Your task to perform on an android device: make emails show in primary in the gmail app Image 0: 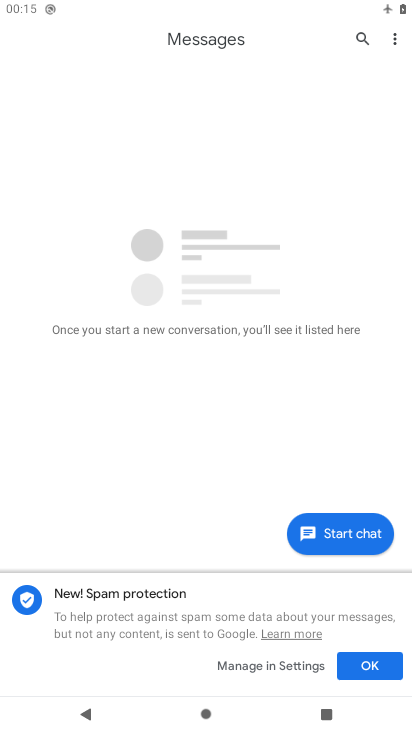
Step 0: press home button
Your task to perform on an android device: make emails show in primary in the gmail app Image 1: 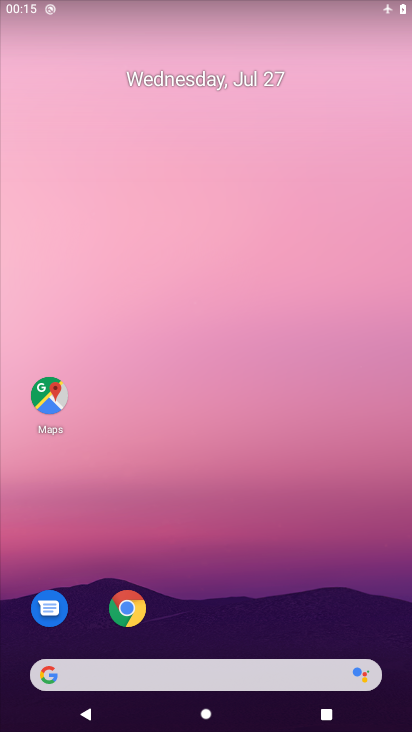
Step 1: drag from (230, 629) to (228, 59)
Your task to perform on an android device: make emails show in primary in the gmail app Image 2: 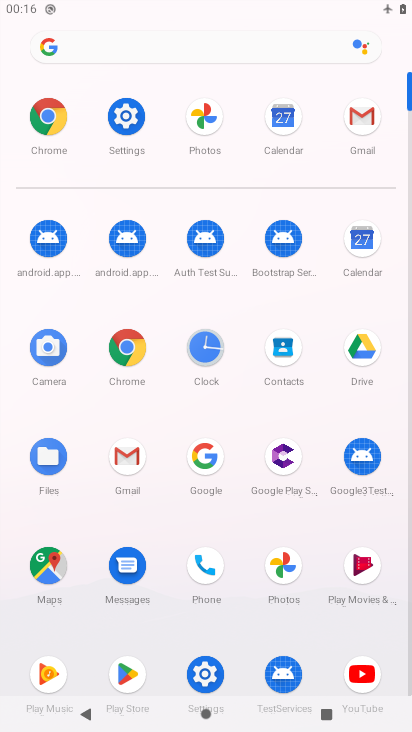
Step 2: click (369, 120)
Your task to perform on an android device: make emails show in primary in the gmail app Image 3: 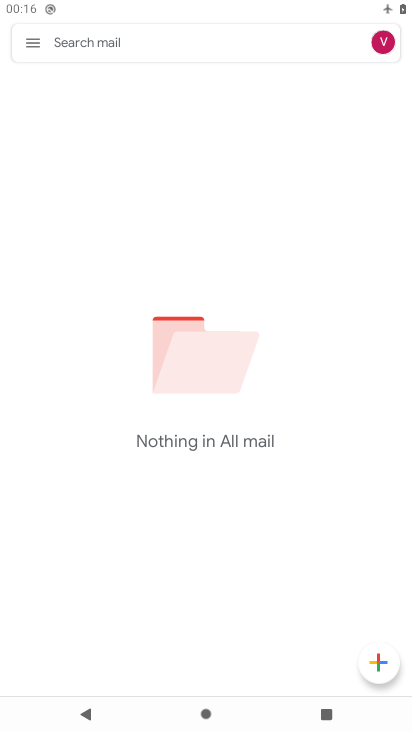
Step 3: click (29, 37)
Your task to perform on an android device: make emails show in primary in the gmail app Image 4: 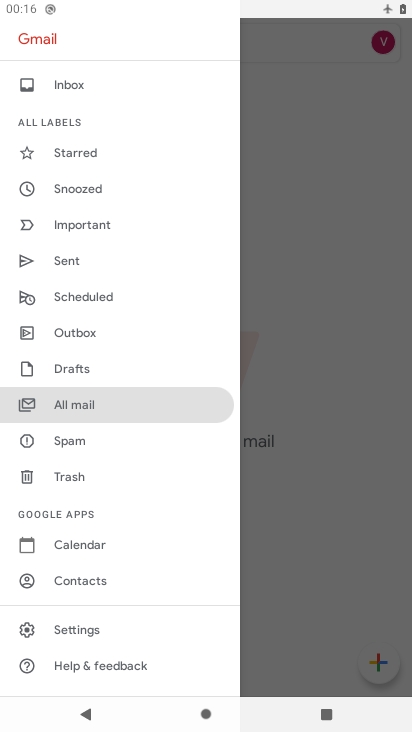
Step 4: click (74, 628)
Your task to perform on an android device: make emails show in primary in the gmail app Image 5: 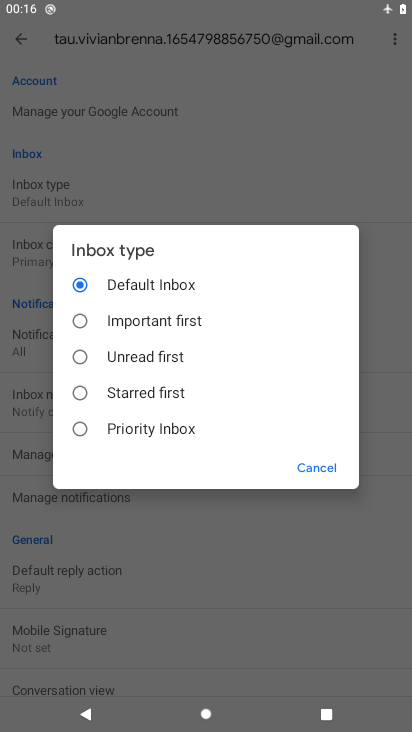
Step 5: click (321, 469)
Your task to perform on an android device: make emails show in primary in the gmail app Image 6: 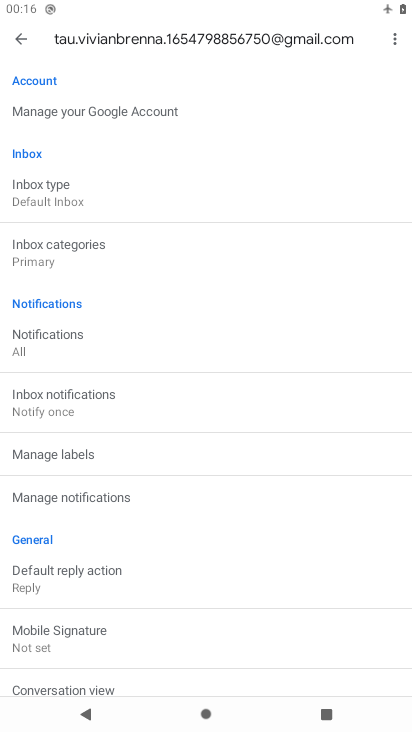
Step 6: click (49, 249)
Your task to perform on an android device: make emails show in primary in the gmail app Image 7: 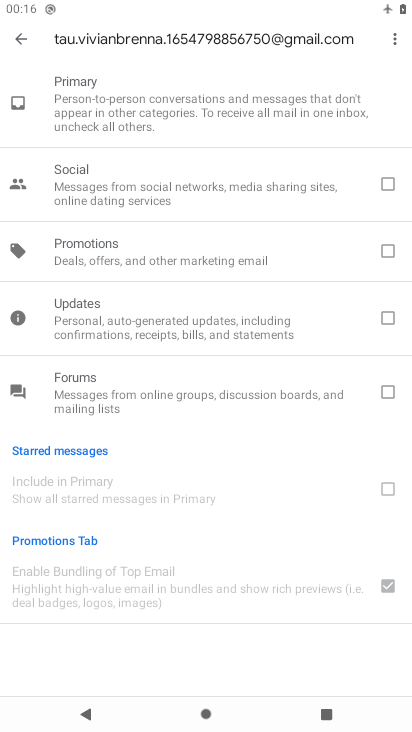
Step 7: task complete